Your task to perform on an android device: delete a single message in the gmail app Image 0: 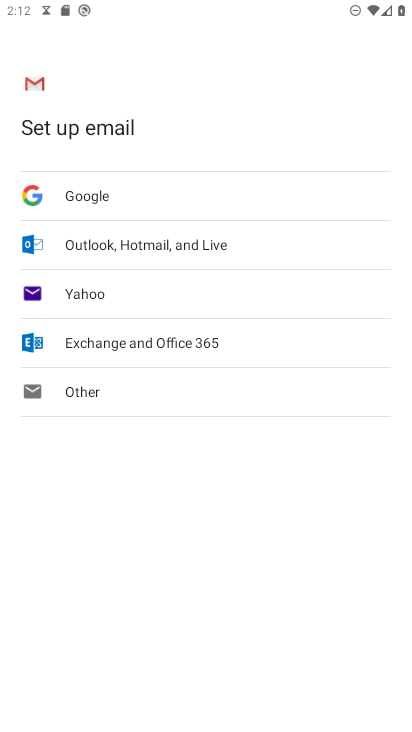
Step 0: press home button
Your task to perform on an android device: delete a single message in the gmail app Image 1: 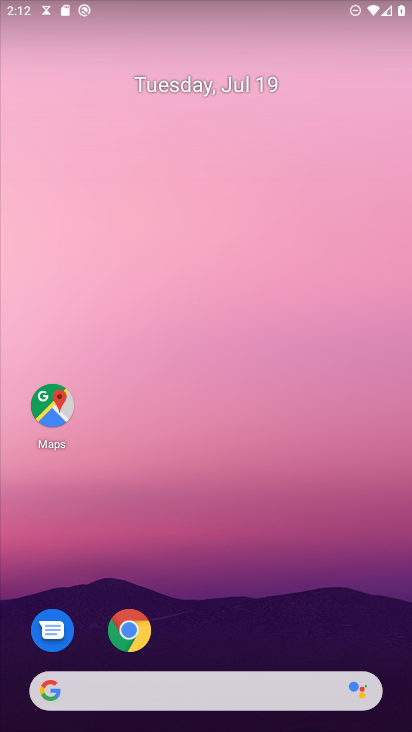
Step 1: drag from (139, 695) to (276, 68)
Your task to perform on an android device: delete a single message in the gmail app Image 2: 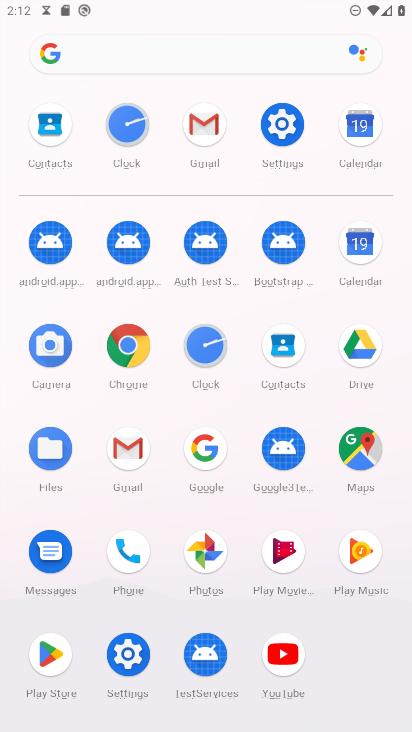
Step 2: click (208, 133)
Your task to perform on an android device: delete a single message in the gmail app Image 3: 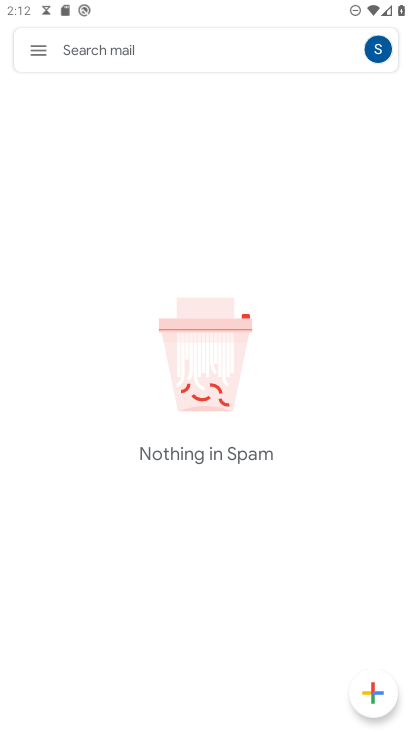
Step 3: click (200, 133)
Your task to perform on an android device: delete a single message in the gmail app Image 4: 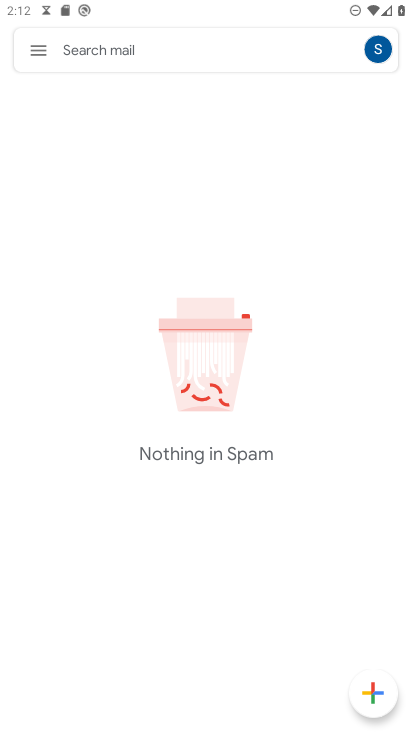
Step 4: click (40, 53)
Your task to perform on an android device: delete a single message in the gmail app Image 5: 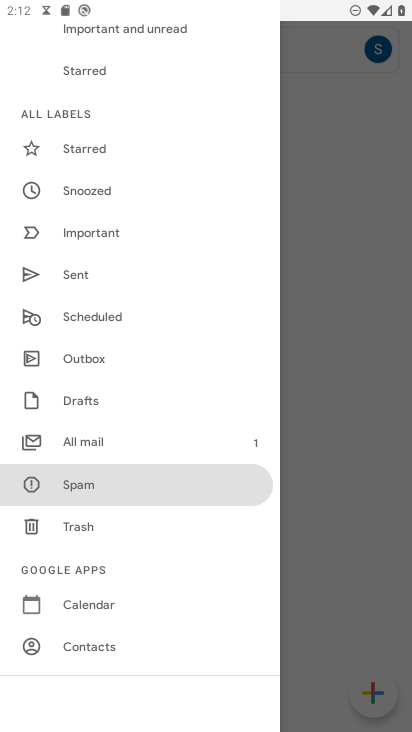
Step 5: click (37, 49)
Your task to perform on an android device: delete a single message in the gmail app Image 6: 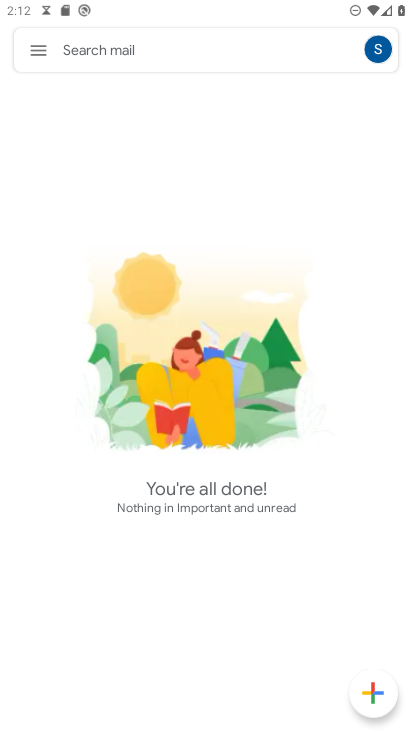
Step 6: click (90, 443)
Your task to perform on an android device: delete a single message in the gmail app Image 7: 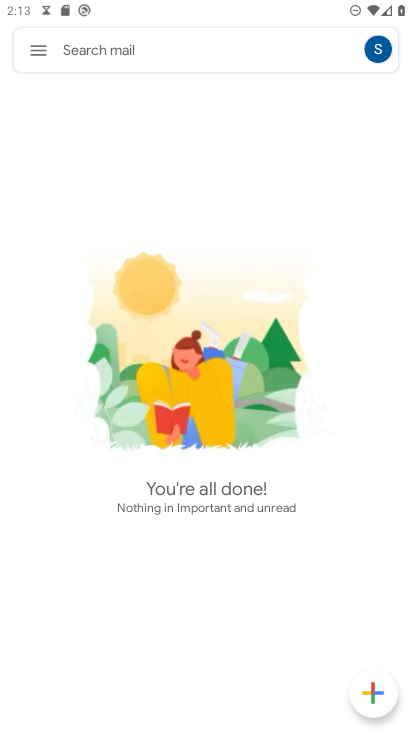
Step 7: click (47, 50)
Your task to perform on an android device: delete a single message in the gmail app Image 8: 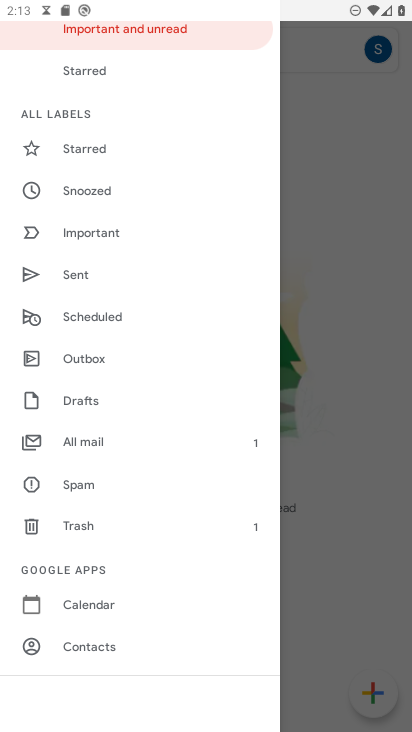
Step 8: click (37, 43)
Your task to perform on an android device: delete a single message in the gmail app Image 9: 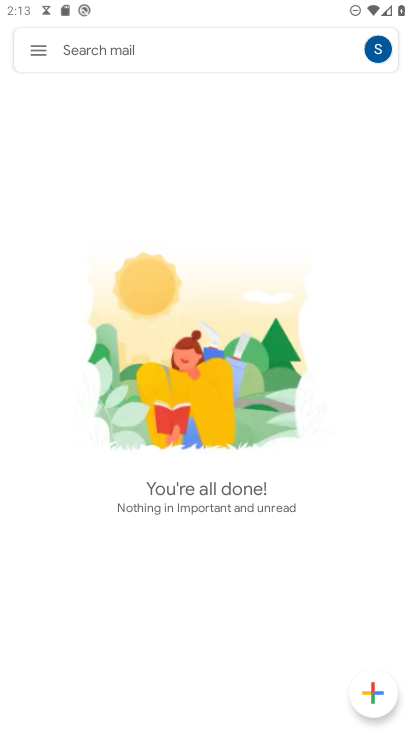
Step 9: click (80, 442)
Your task to perform on an android device: delete a single message in the gmail app Image 10: 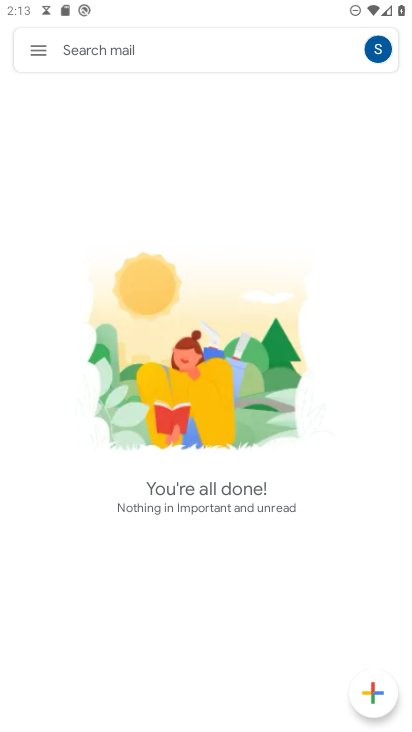
Step 10: click (100, 440)
Your task to perform on an android device: delete a single message in the gmail app Image 11: 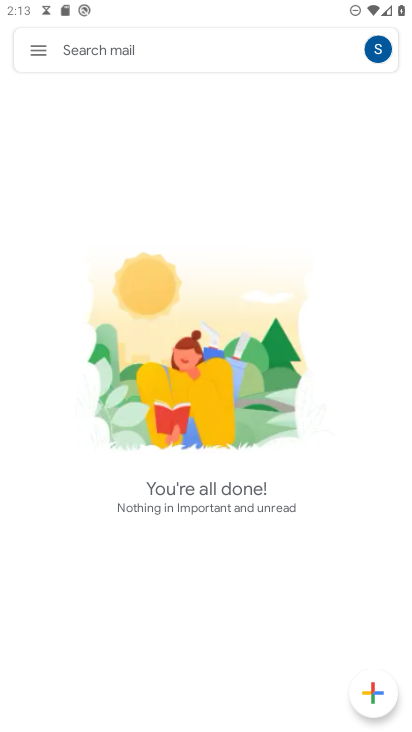
Step 11: click (42, 49)
Your task to perform on an android device: delete a single message in the gmail app Image 12: 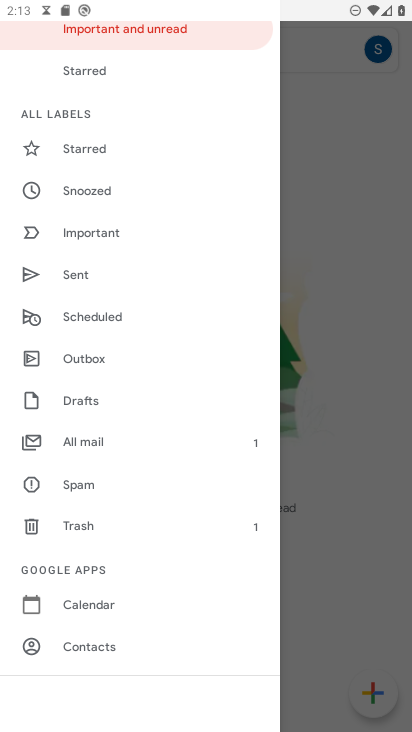
Step 12: click (92, 438)
Your task to perform on an android device: delete a single message in the gmail app Image 13: 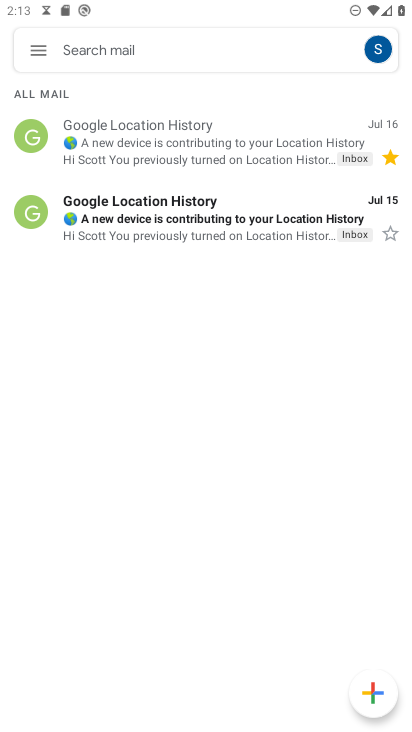
Step 13: click (37, 130)
Your task to perform on an android device: delete a single message in the gmail app Image 14: 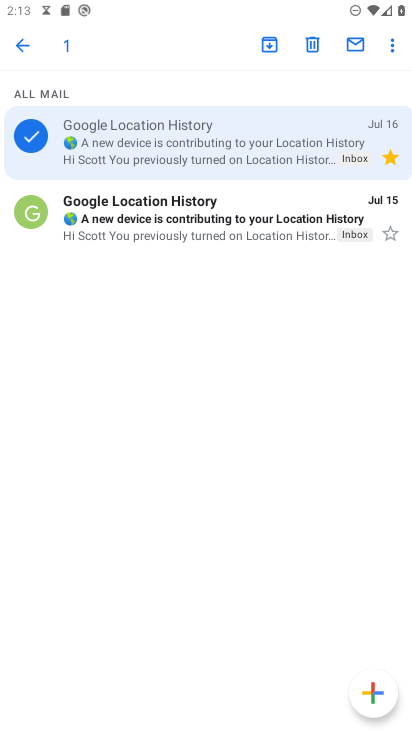
Step 14: click (308, 43)
Your task to perform on an android device: delete a single message in the gmail app Image 15: 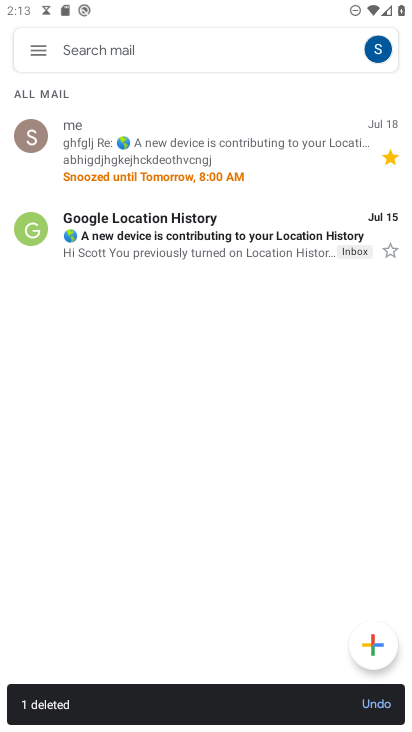
Step 15: task complete